Your task to perform on an android device: turn notification dots off Image 0: 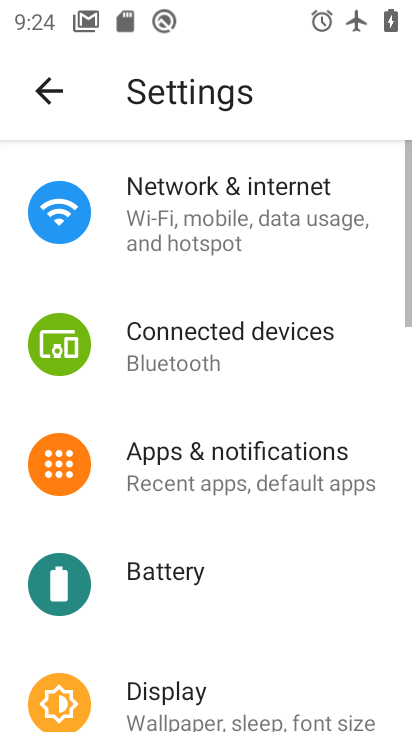
Step 0: drag from (344, 580) to (343, 535)
Your task to perform on an android device: turn notification dots off Image 1: 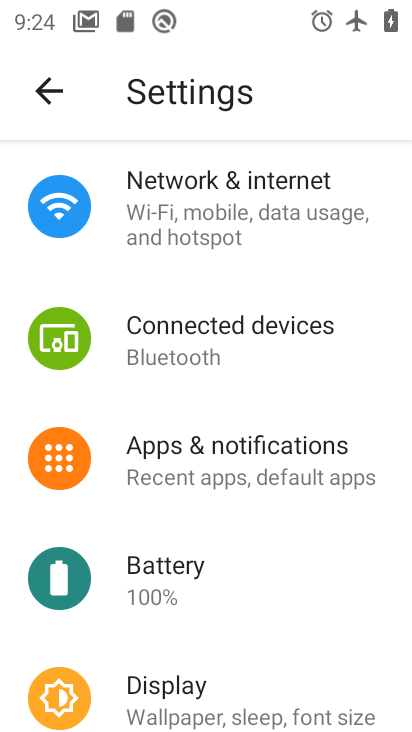
Step 1: press home button
Your task to perform on an android device: turn notification dots off Image 2: 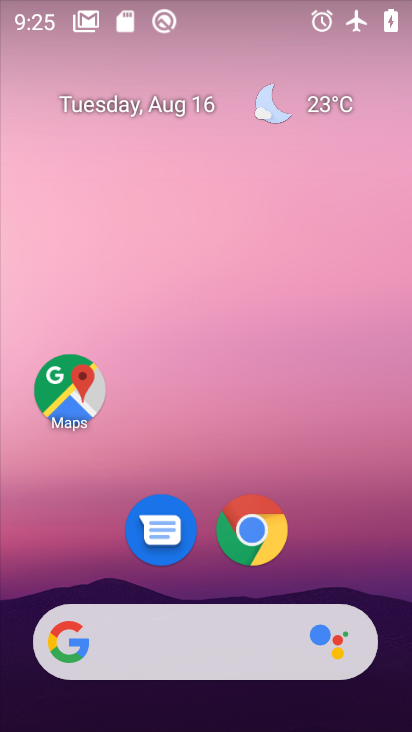
Step 2: drag from (355, 524) to (314, 72)
Your task to perform on an android device: turn notification dots off Image 3: 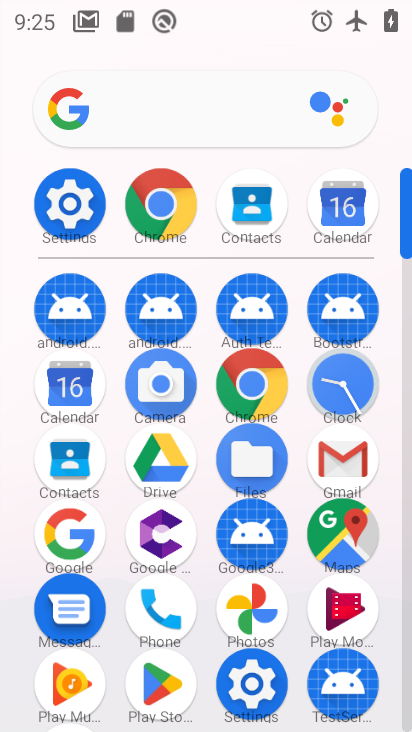
Step 3: click (258, 678)
Your task to perform on an android device: turn notification dots off Image 4: 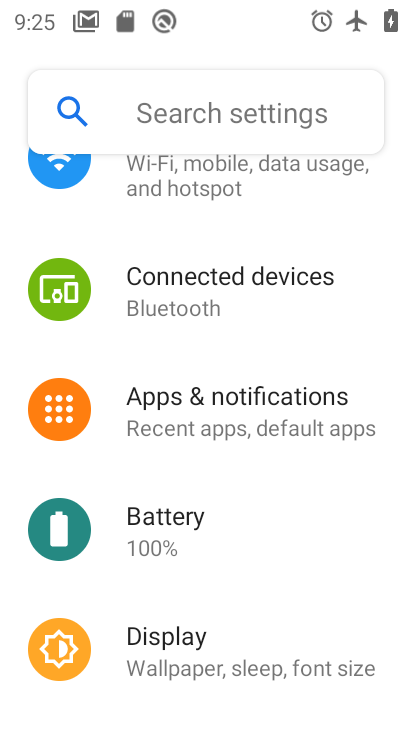
Step 4: click (298, 420)
Your task to perform on an android device: turn notification dots off Image 5: 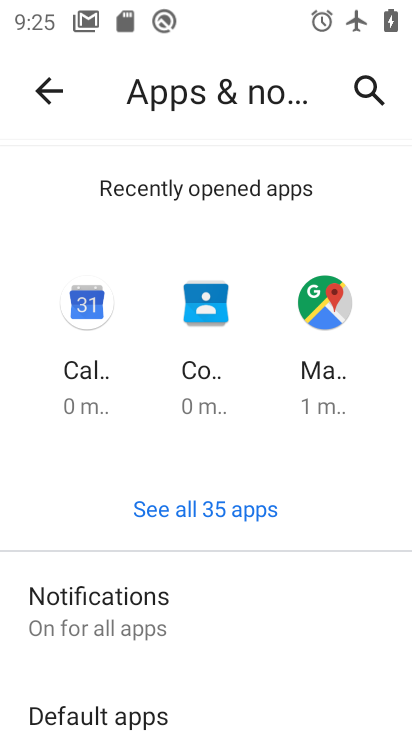
Step 5: click (72, 621)
Your task to perform on an android device: turn notification dots off Image 6: 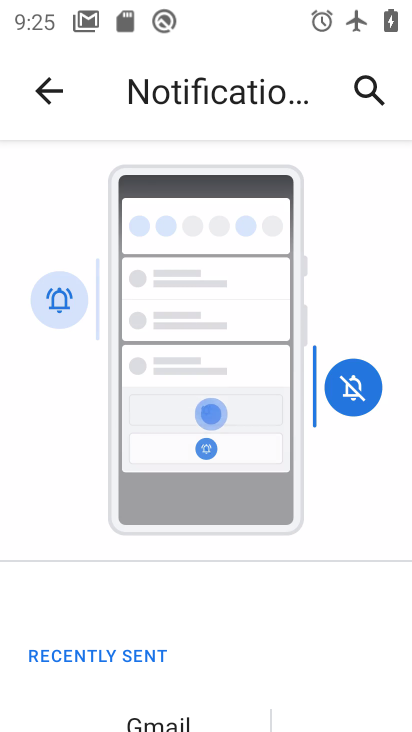
Step 6: drag from (319, 659) to (321, 192)
Your task to perform on an android device: turn notification dots off Image 7: 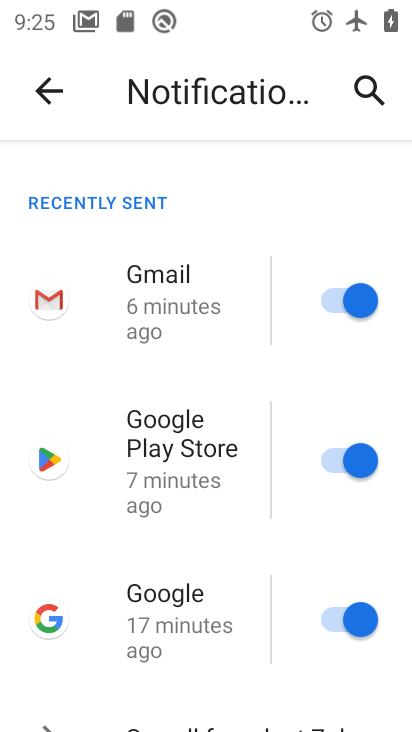
Step 7: drag from (258, 692) to (283, 284)
Your task to perform on an android device: turn notification dots off Image 8: 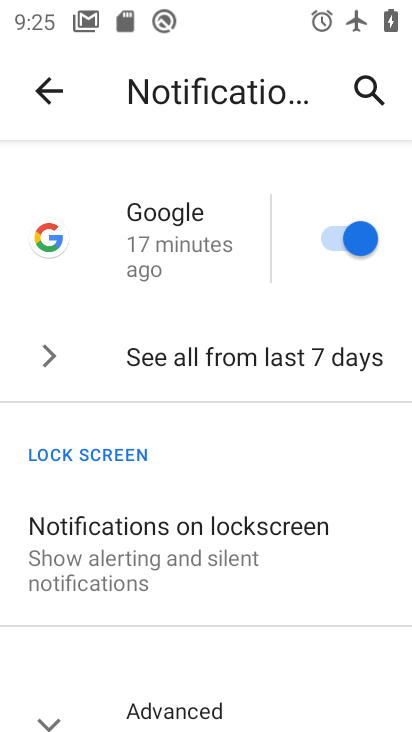
Step 8: drag from (249, 669) to (283, 340)
Your task to perform on an android device: turn notification dots off Image 9: 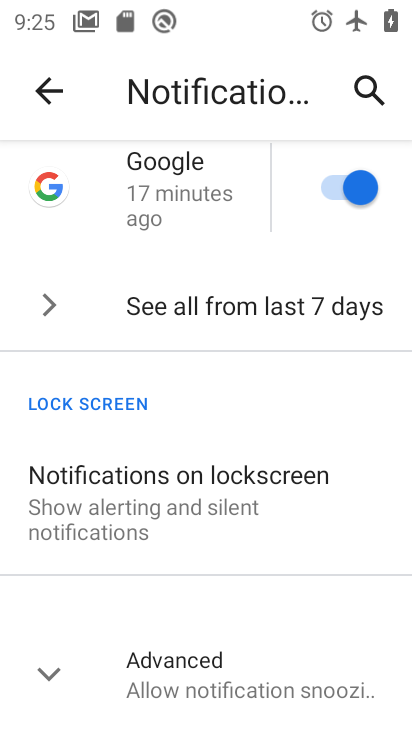
Step 9: click (191, 692)
Your task to perform on an android device: turn notification dots off Image 10: 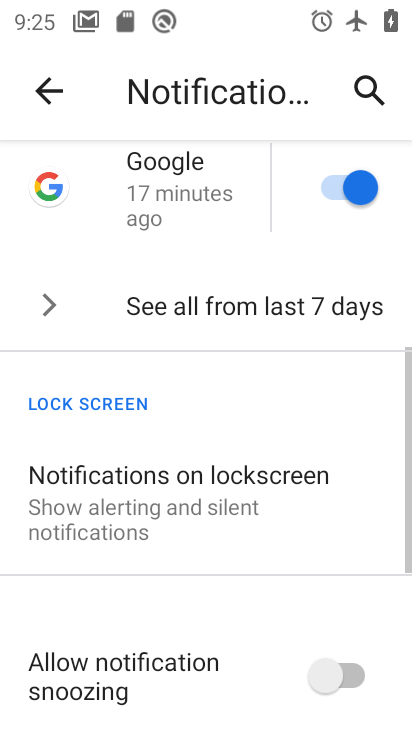
Step 10: task complete